Your task to perform on an android device: turn on showing notifications on the lock screen Image 0: 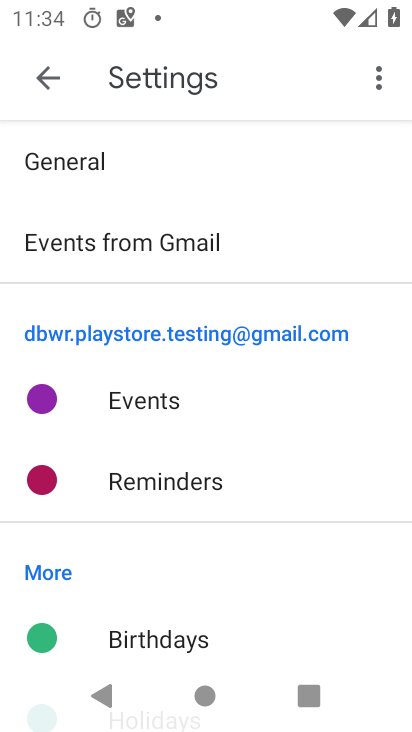
Step 0: press home button
Your task to perform on an android device: turn on showing notifications on the lock screen Image 1: 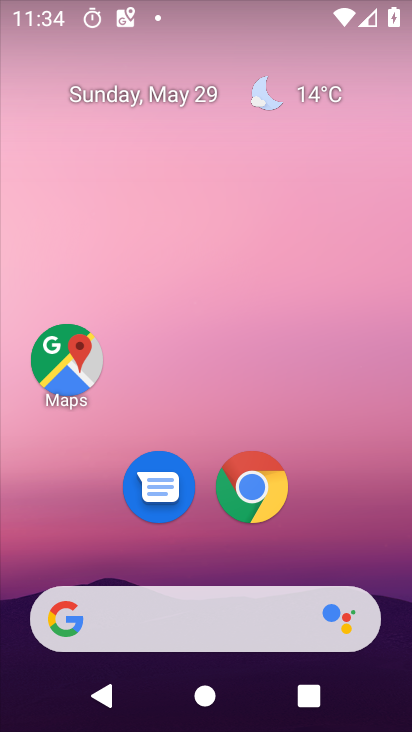
Step 1: drag from (397, 703) to (328, 217)
Your task to perform on an android device: turn on showing notifications on the lock screen Image 2: 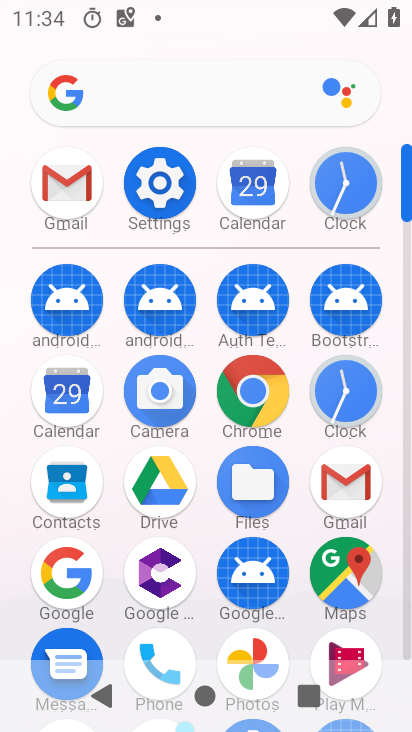
Step 2: click (163, 167)
Your task to perform on an android device: turn on showing notifications on the lock screen Image 3: 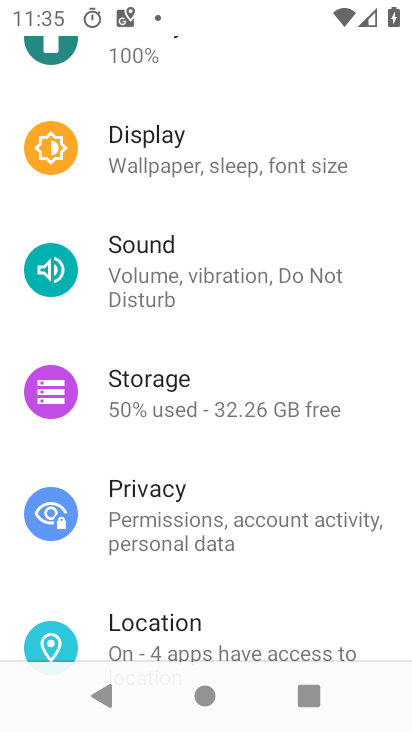
Step 3: drag from (303, 106) to (347, 449)
Your task to perform on an android device: turn on showing notifications on the lock screen Image 4: 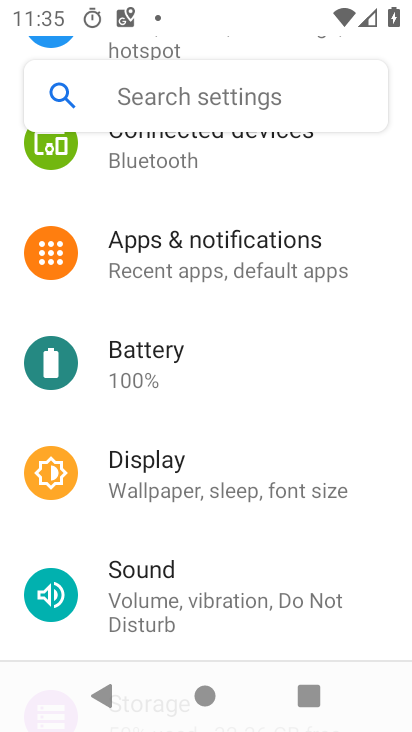
Step 4: drag from (324, 185) to (327, 611)
Your task to perform on an android device: turn on showing notifications on the lock screen Image 5: 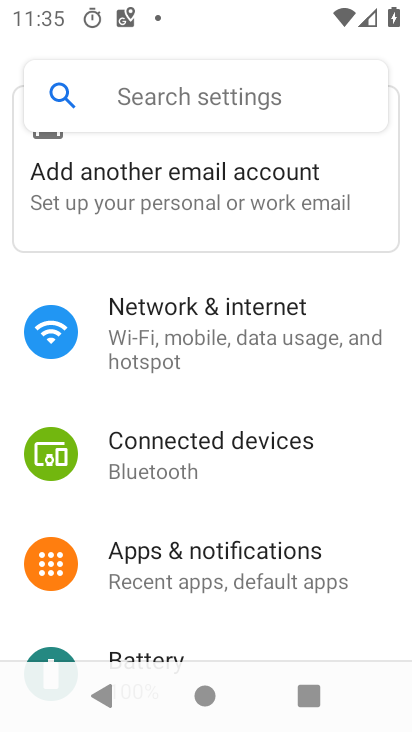
Step 5: click (202, 326)
Your task to perform on an android device: turn on showing notifications on the lock screen Image 6: 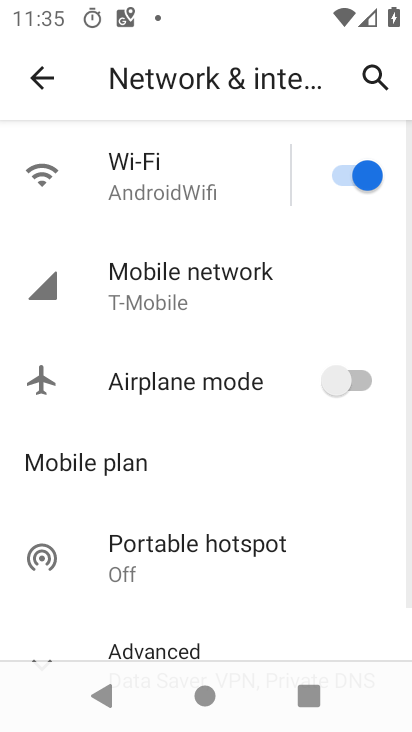
Step 6: click (45, 78)
Your task to perform on an android device: turn on showing notifications on the lock screen Image 7: 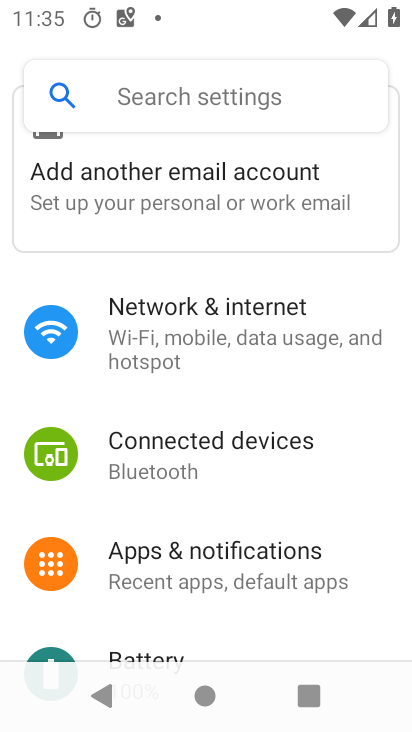
Step 7: click (136, 566)
Your task to perform on an android device: turn on showing notifications on the lock screen Image 8: 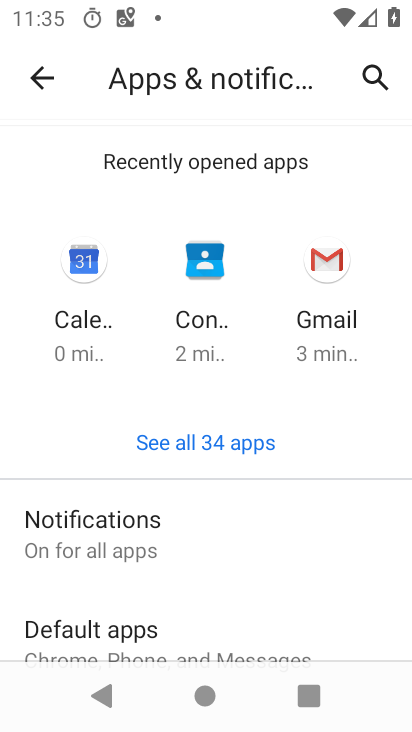
Step 8: click (111, 521)
Your task to perform on an android device: turn on showing notifications on the lock screen Image 9: 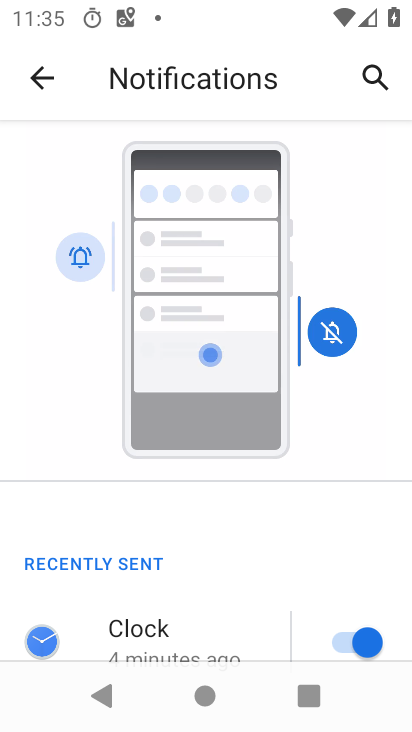
Step 9: drag from (238, 625) to (152, 111)
Your task to perform on an android device: turn on showing notifications on the lock screen Image 10: 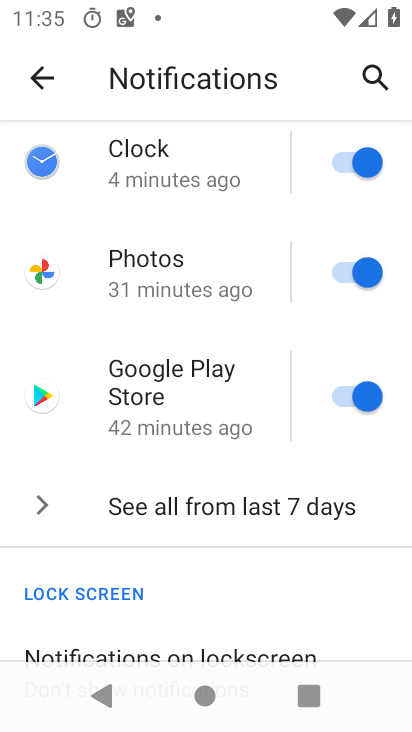
Step 10: drag from (292, 627) to (259, 276)
Your task to perform on an android device: turn on showing notifications on the lock screen Image 11: 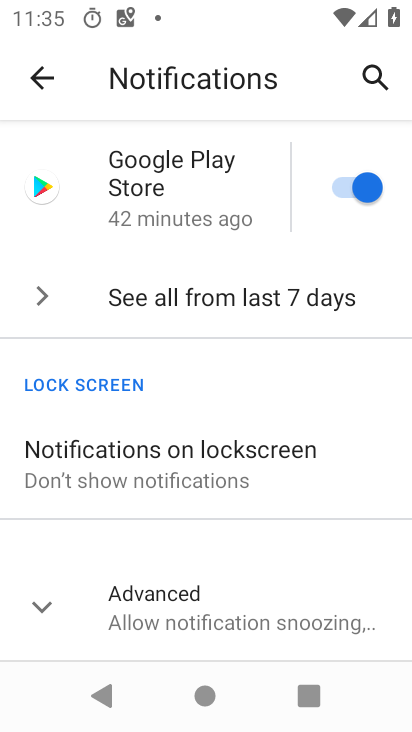
Step 11: click (218, 458)
Your task to perform on an android device: turn on showing notifications on the lock screen Image 12: 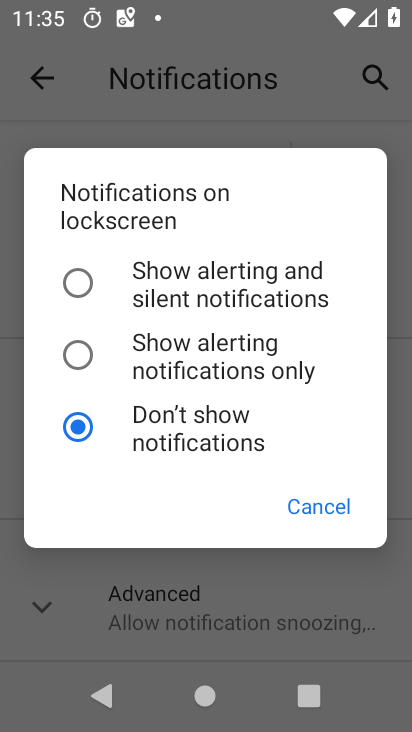
Step 12: click (78, 285)
Your task to perform on an android device: turn on showing notifications on the lock screen Image 13: 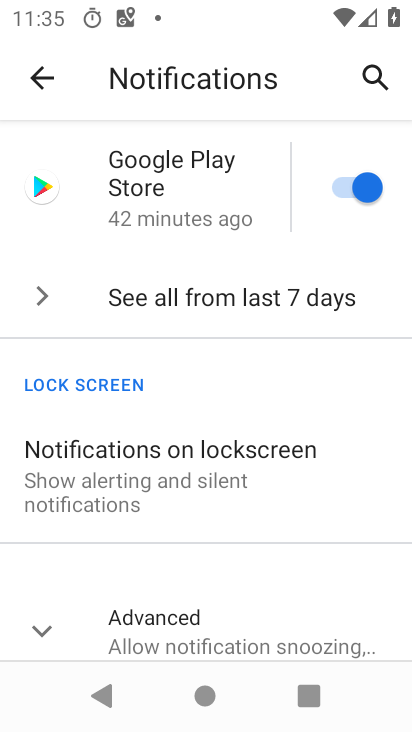
Step 13: task complete